Your task to perform on an android device: Go to Google Image 0: 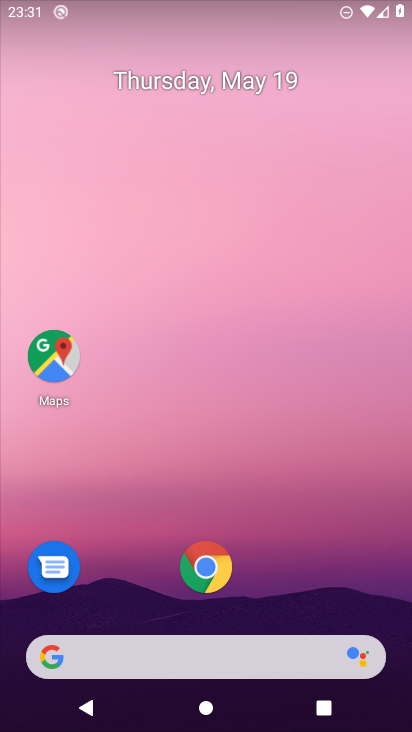
Step 0: press home button
Your task to perform on an android device: Go to Google Image 1: 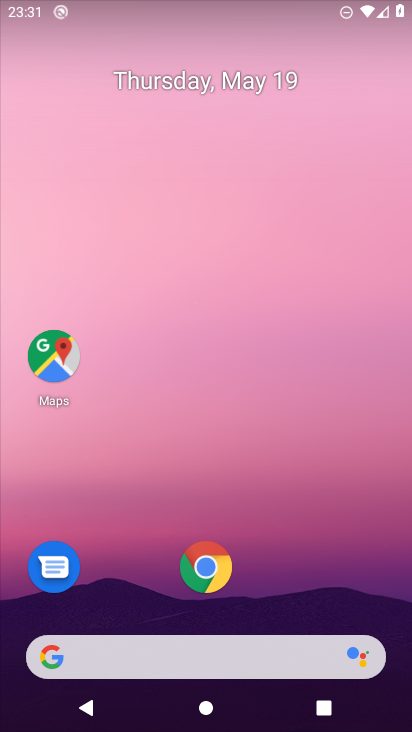
Step 1: drag from (279, 455) to (266, 214)
Your task to perform on an android device: Go to Google Image 2: 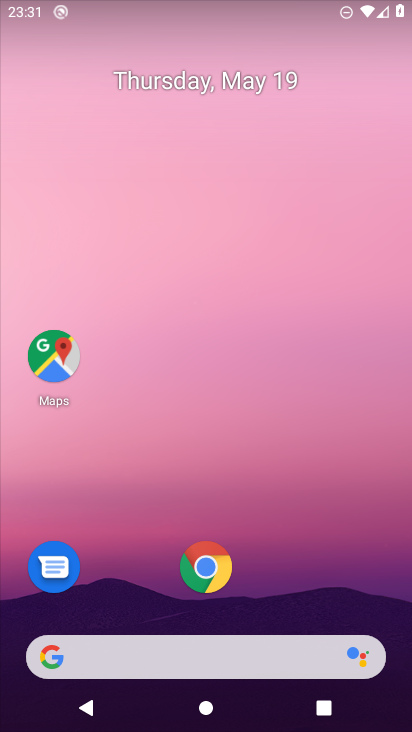
Step 2: drag from (280, 603) to (306, 166)
Your task to perform on an android device: Go to Google Image 3: 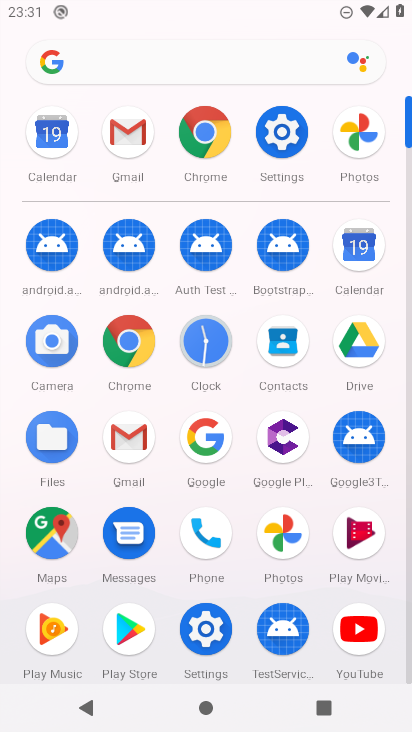
Step 3: click (205, 435)
Your task to perform on an android device: Go to Google Image 4: 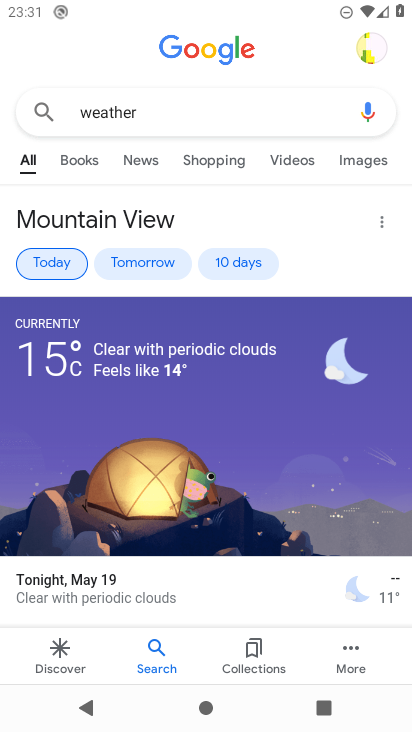
Step 4: task complete